Your task to perform on an android device: toggle pop-ups in chrome Image 0: 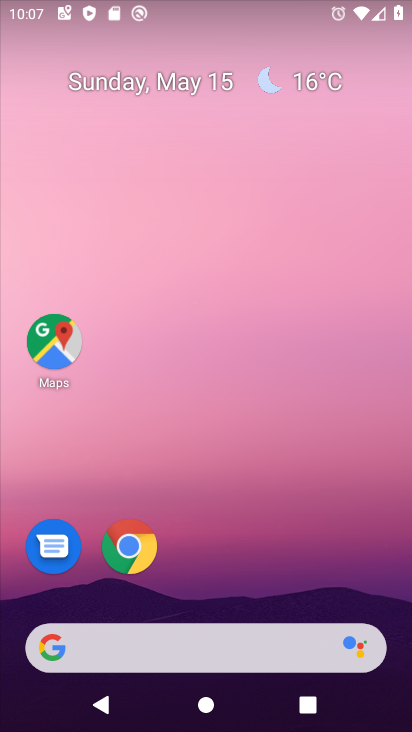
Step 0: drag from (223, 526) to (164, 202)
Your task to perform on an android device: toggle pop-ups in chrome Image 1: 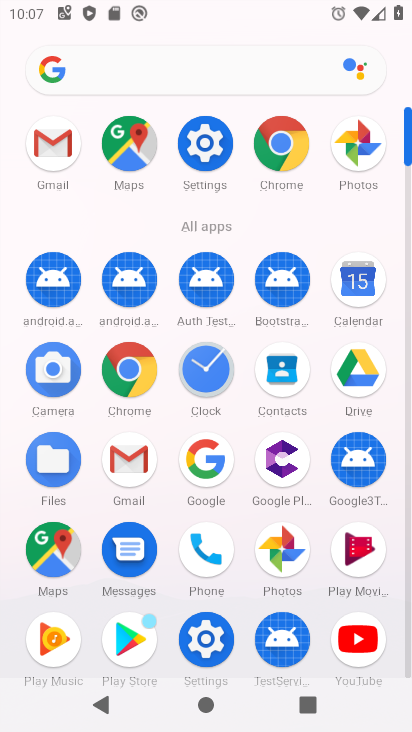
Step 1: click (271, 152)
Your task to perform on an android device: toggle pop-ups in chrome Image 2: 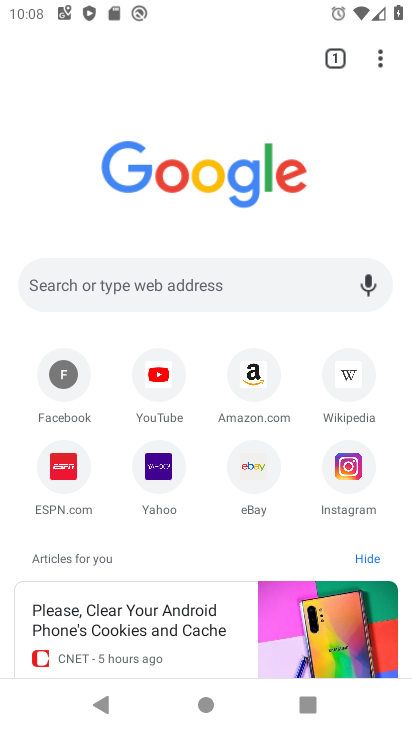
Step 2: drag from (382, 60) to (156, 485)
Your task to perform on an android device: toggle pop-ups in chrome Image 3: 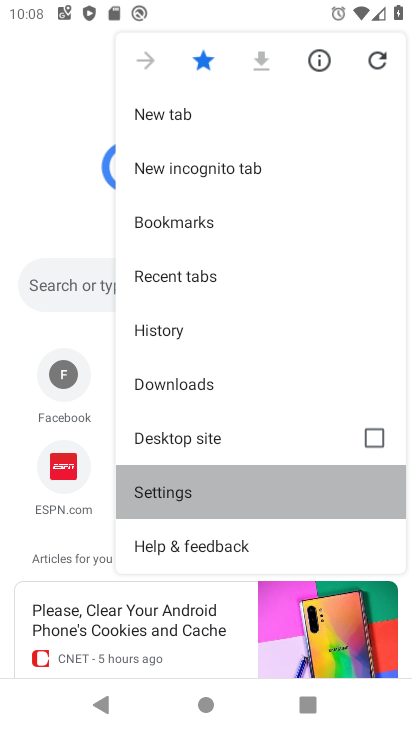
Step 3: click (156, 485)
Your task to perform on an android device: toggle pop-ups in chrome Image 4: 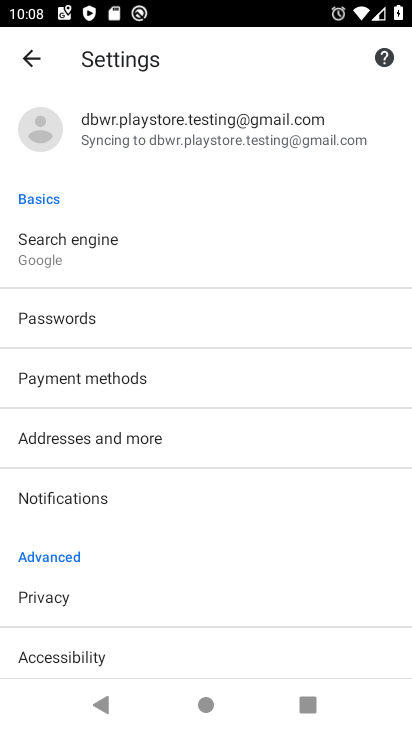
Step 4: drag from (73, 537) to (86, 226)
Your task to perform on an android device: toggle pop-ups in chrome Image 5: 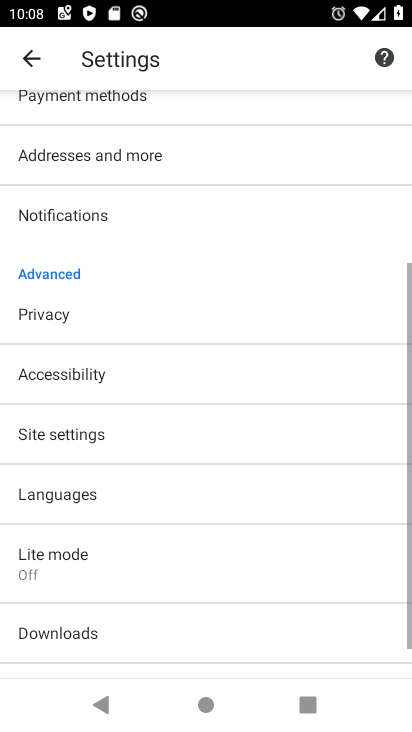
Step 5: drag from (110, 564) to (162, 253)
Your task to perform on an android device: toggle pop-ups in chrome Image 6: 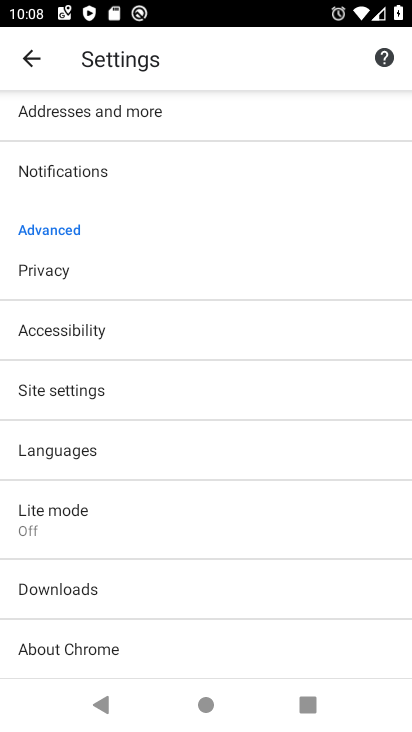
Step 6: click (48, 391)
Your task to perform on an android device: toggle pop-ups in chrome Image 7: 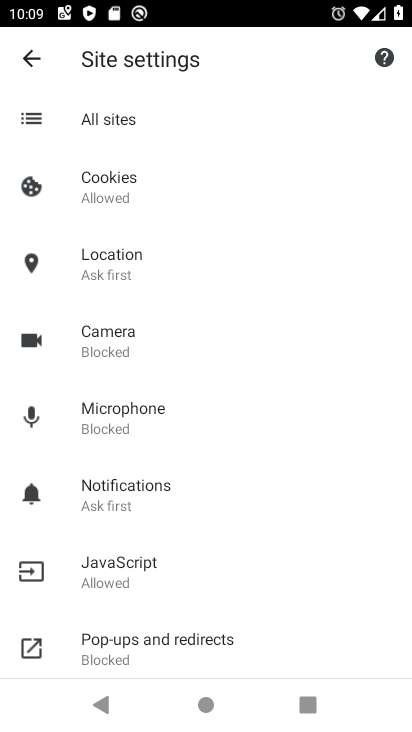
Step 7: click (115, 640)
Your task to perform on an android device: toggle pop-ups in chrome Image 8: 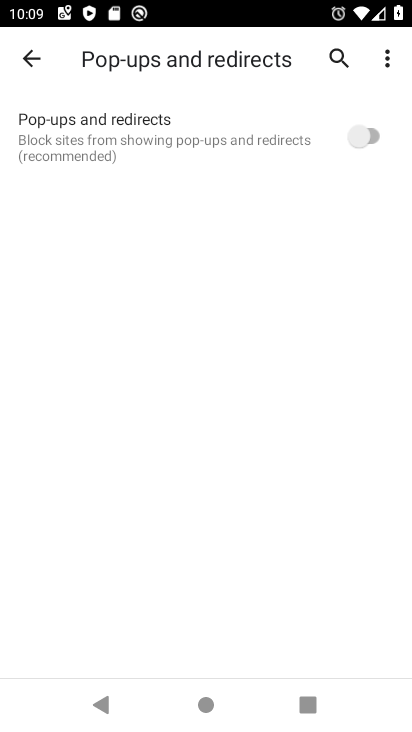
Step 8: click (121, 639)
Your task to perform on an android device: toggle pop-ups in chrome Image 9: 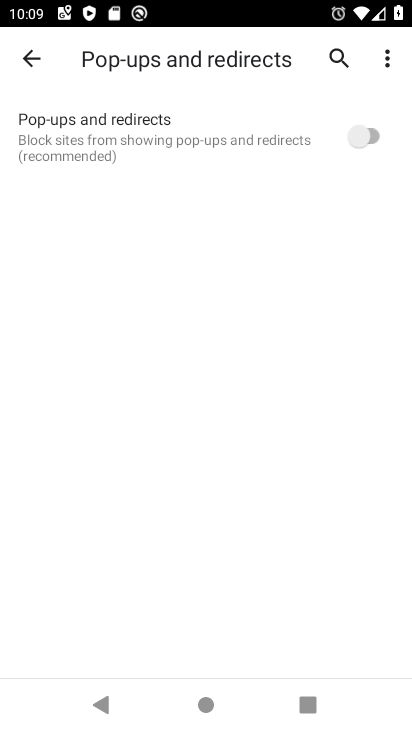
Step 9: click (353, 133)
Your task to perform on an android device: toggle pop-ups in chrome Image 10: 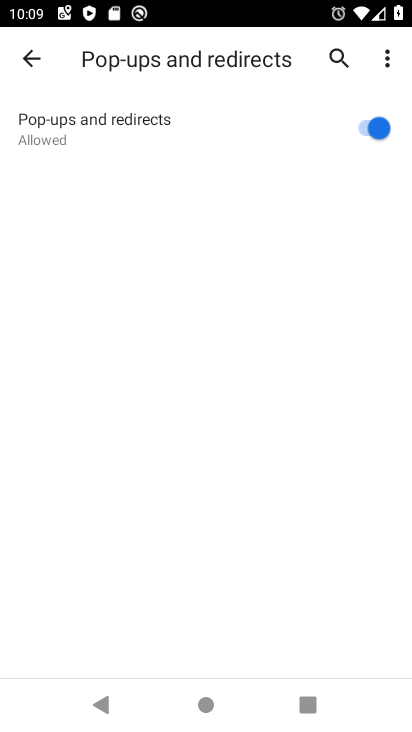
Step 10: task complete